Your task to perform on an android device: Turn off the flashlight Image 0: 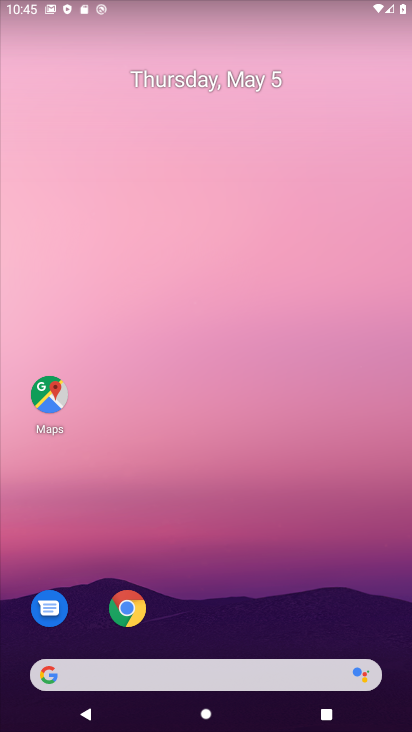
Step 0: drag from (272, 589) to (183, 133)
Your task to perform on an android device: Turn off the flashlight Image 1: 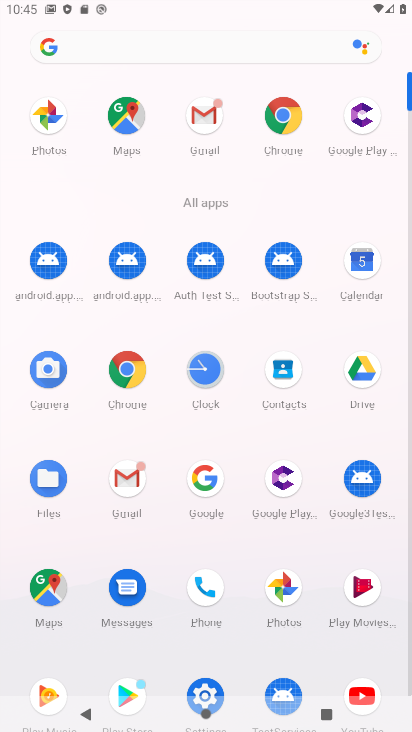
Step 1: click (200, 688)
Your task to perform on an android device: Turn off the flashlight Image 2: 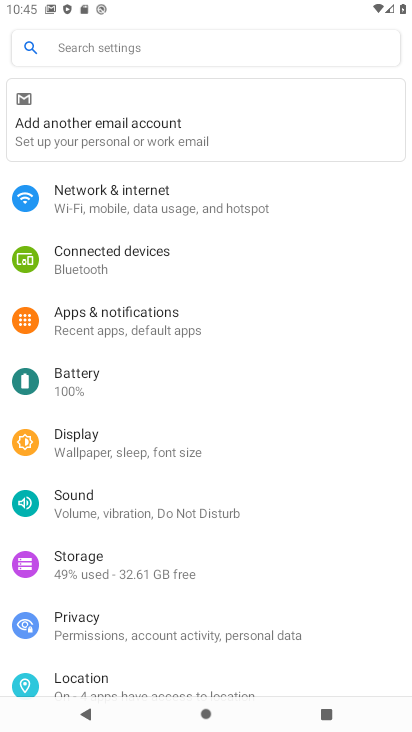
Step 2: click (91, 222)
Your task to perform on an android device: Turn off the flashlight Image 3: 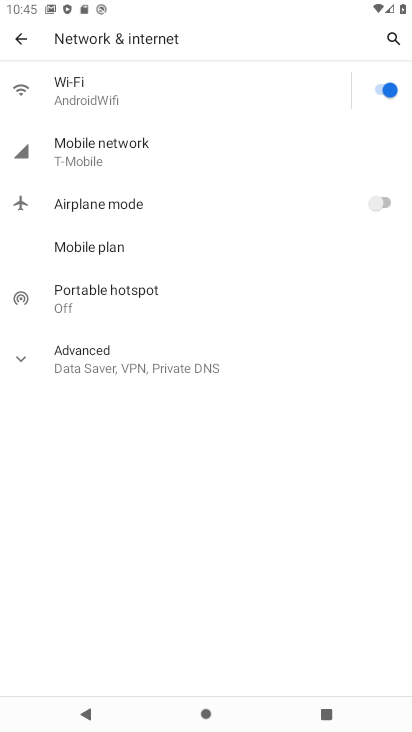
Step 3: task complete